Your task to perform on an android device: What's the weather going to be this weekend? Image 0: 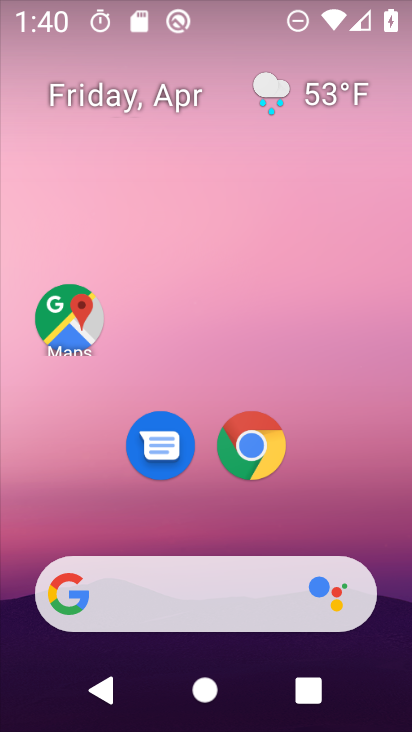
Step 0: click (241, 592)
Your task to perform on an android device: What's the weather going to be this weekend? Image 1: 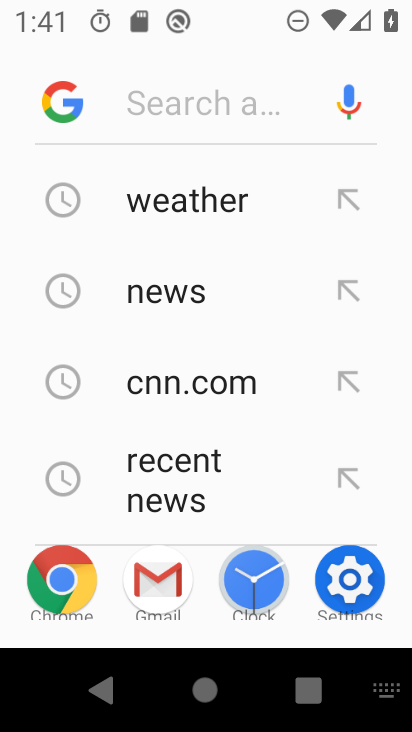
Step 1: click (190, 191)
Your task to perform on an android device: What's the weather going to be this weekend? Image 2: 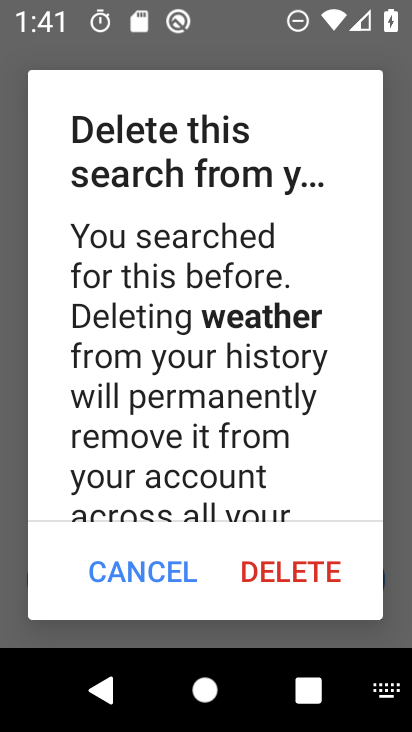
Step 2: click (155, 566)
Your task to perform on an android device: What's the weather going to be this weekend? Image 3: 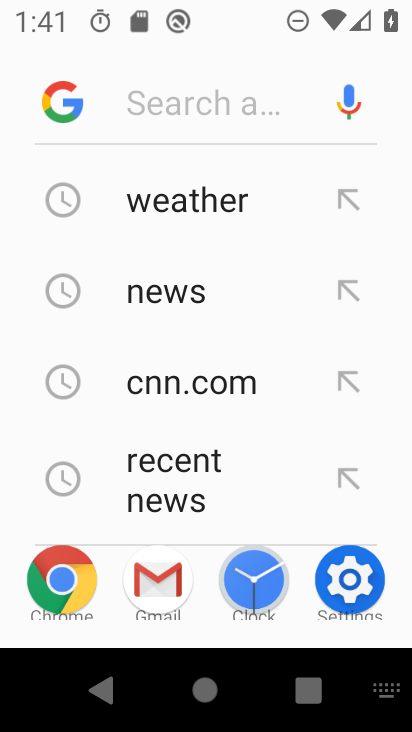
Step 3: click (206, 198)
Your task to perform on an android device: What's the weather going to be this weekend? Image 4: 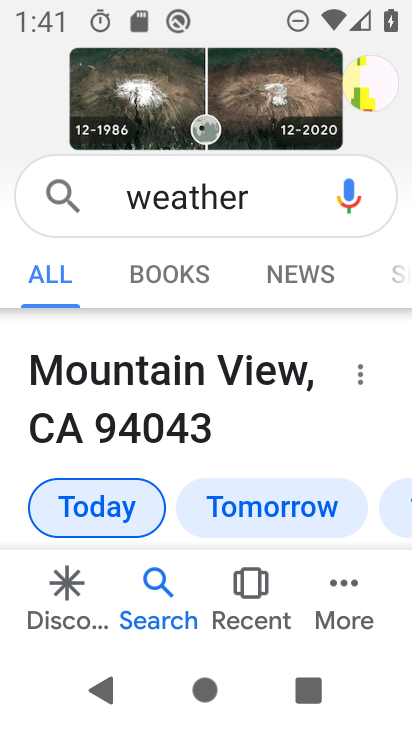
Step 4: drag from (350, 434) to (59, 419)
Your task to perform on an android device: What's the weather going to be this weekend? Image 5: 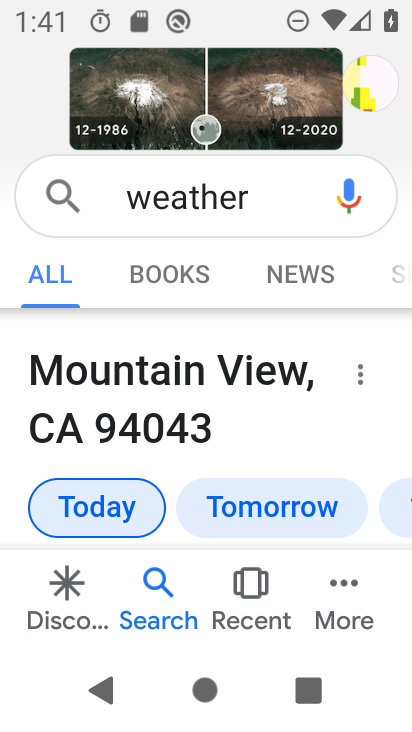
Step 5: drag from (330, 431) to (152, 418)
Your task to perform on an android device: What's the weather going to be this weekend? Image 6: 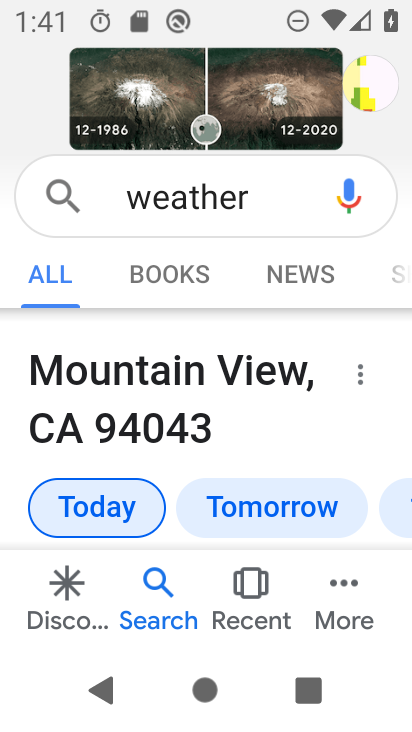
Step 6: drag from (293, 426) to (272, 213)
Your task to perform on an android device: What's the weather going to be this weekend? Image 7: 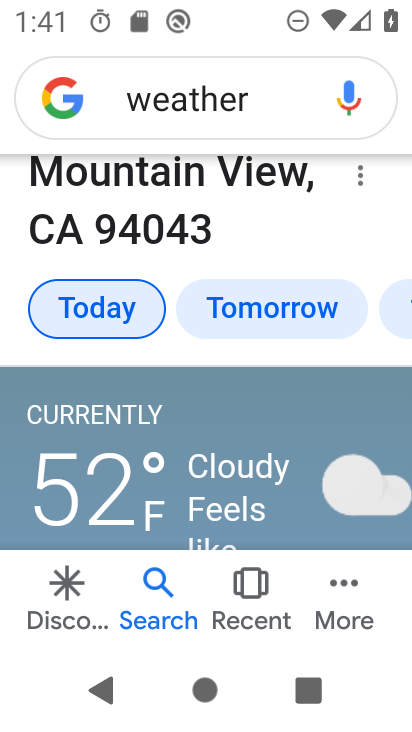
Step 7: click (397, 308)
Your task to perform on an android device: What's the weather going to be this weekend? Image 8: 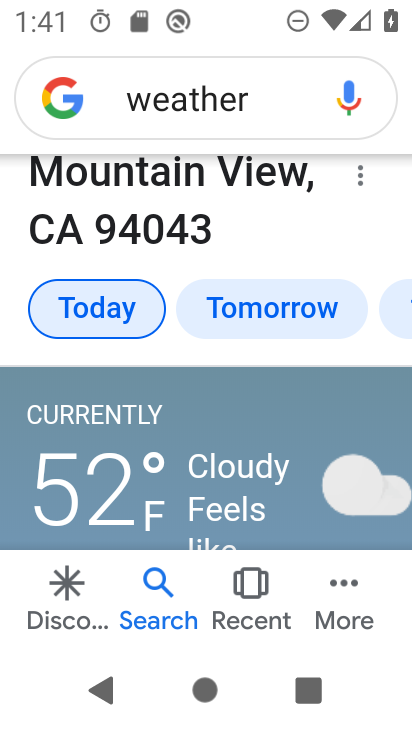
Step 8: click (393, 308)
Your task to perform on an android device: What's the weather going to be this weekend? Image 9: 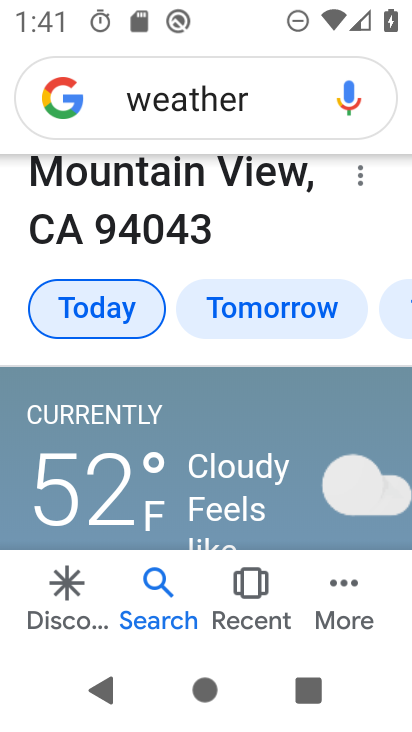
Step 9: task complete